Your task to perform on an android device: open a bookmark in the chrome app Image 0: 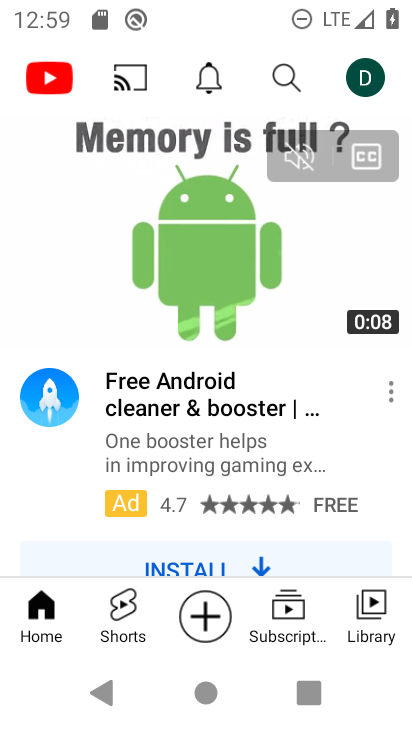
Step 0: press home button
Your task to perform on an android device: open a bookmark in the chrome app Image 1: 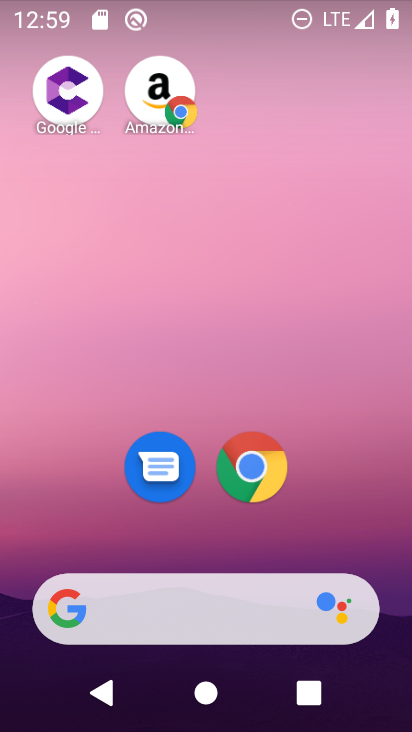
Step 1: drag from (286, 628) to (227, 4)
Your task to perform on an android device: open a bookmark in the chrome app Image 2: 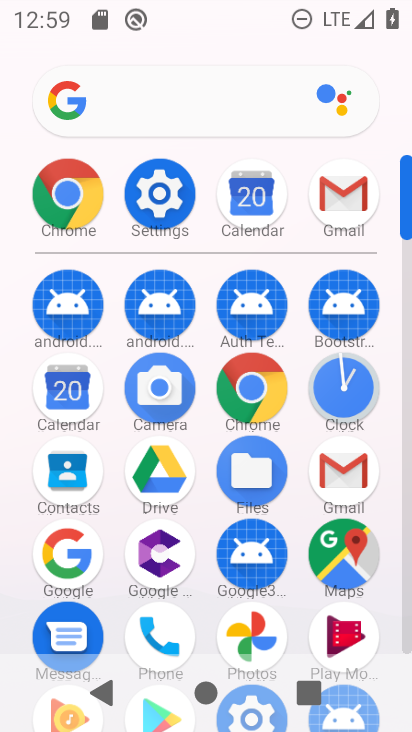
Step 2: click (270, 415)
Your task to perform on an android device: open a bookmark in the chrome app Image 3: 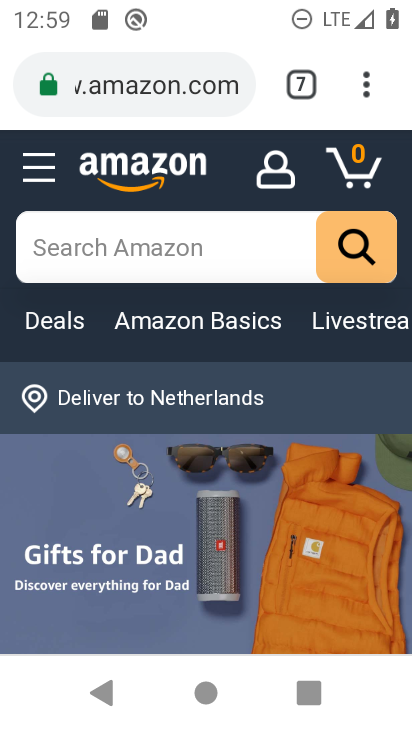
Step 3: task complete